Your task to perform on an android device: Clear all items from cart on bestbuy.com. Add "lenovo thinkpad" to the cart on bestbuy.com, then select checkout. Image 0: 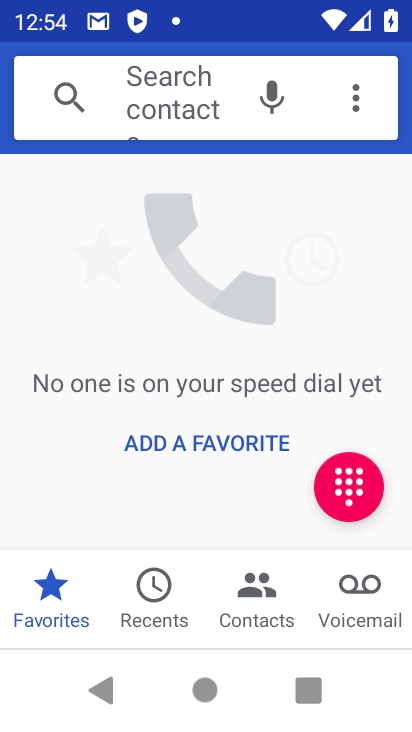
Step 0: press home button
Your task to perform on an android device: Clear all items from cart on bestbuy.com. Add "lenovo thinkpad" to the cart on bestbuy.com, then select checkout. Image 1: 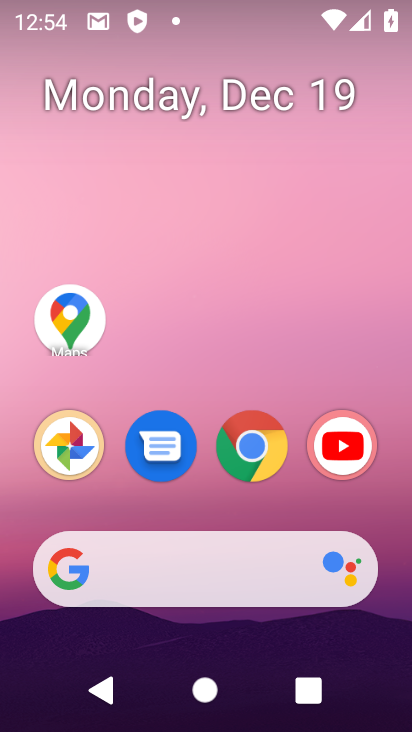
Step 1: click (229, 470)
Your task to perform on an android device: Clear all items from cart on bestbuy.com. Add "lenovo thinkpad" to the cart on bestbuy.com, then select checkout. Image 2: 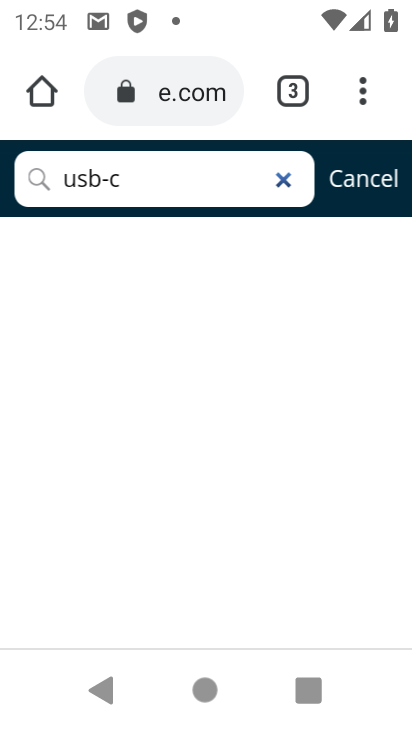
Step 2: click (186, 104)
Your task to perform on an android device: Clear all items from cart on bestbuy.com. Add "lenovo thinkpad" to the cart on bestbuy.com, then select checkout. Image 3: 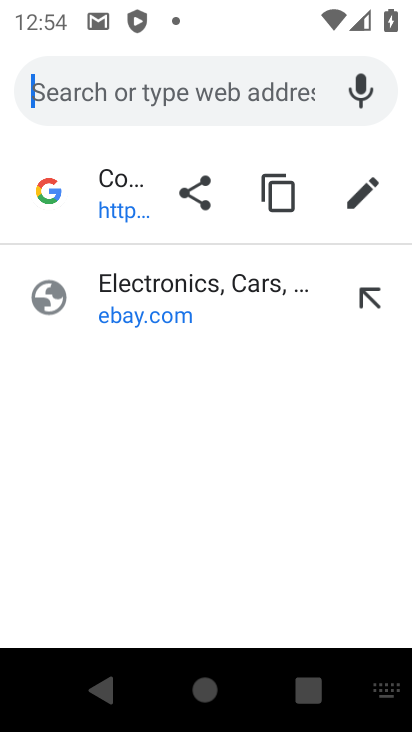
Step 3: type "bestbuy"
Your task to perform on an android device: Clear all items from cart on bestbuy.com. Add "lenovo thinkpad" to the cart on bestbuy.com, then select checkout. Image 4: 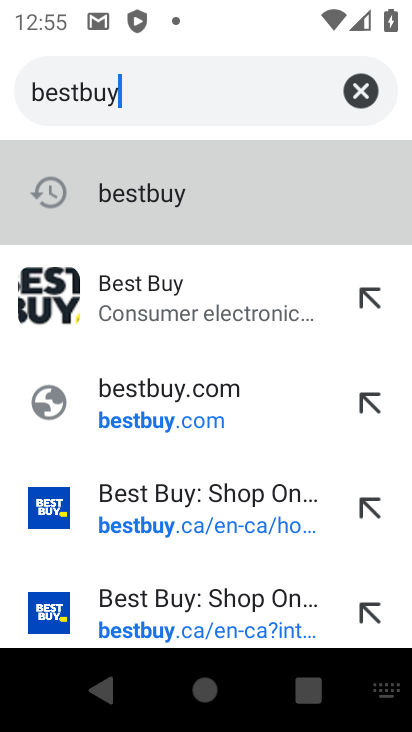
Step 4: click (193, 296)
Your task to perform on an android device: Clear all items from cart on bestbuy.com. Add "lenovo thinkpad" to the cart on bestbuy.com, then select checkout. Image 5: 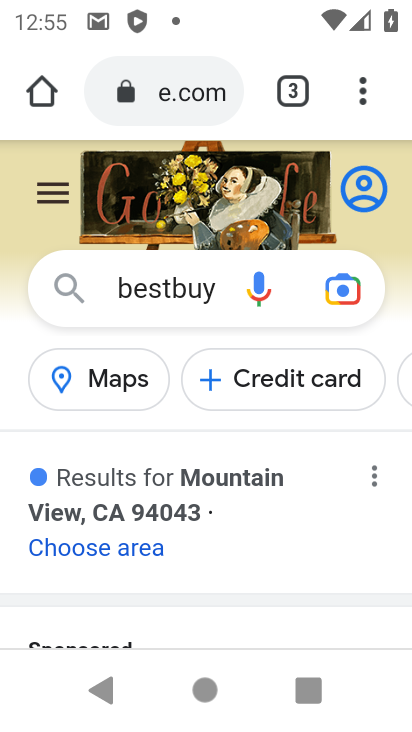
Step 5: drag from (123, 614) to (157, 161)
Your task to perform on an android device: Clear all items from cart on bestbuy.com. Add "lenovo thinkpad" to the cart on bestbuy.com, then select checkout. Image 6: 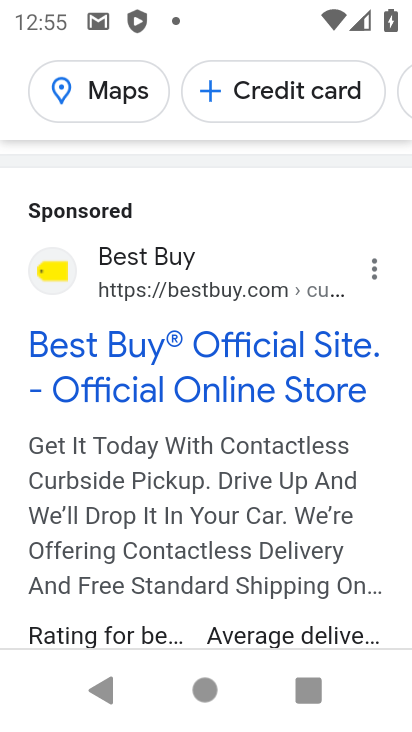
Step 6: click (153, 384)
Your task to perform on an android device: Clear all items from cart on bestbuy.com. Add "lenovo thinkpad" to the cart on bestbuy.com, then select checkout. Image 7: 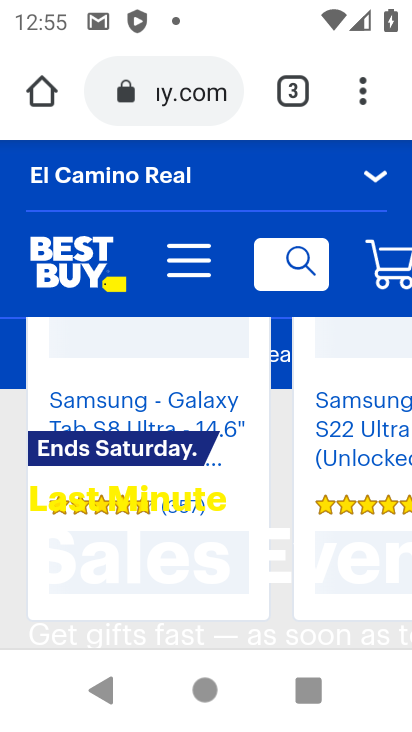
Step 7: click (281, 253)
Your task to perform on an android device: Clear all items from cart on bestbuy.com. Add "lenovo thinkpad" to the cart on bestbuy.com, then select checkout. Image 8: 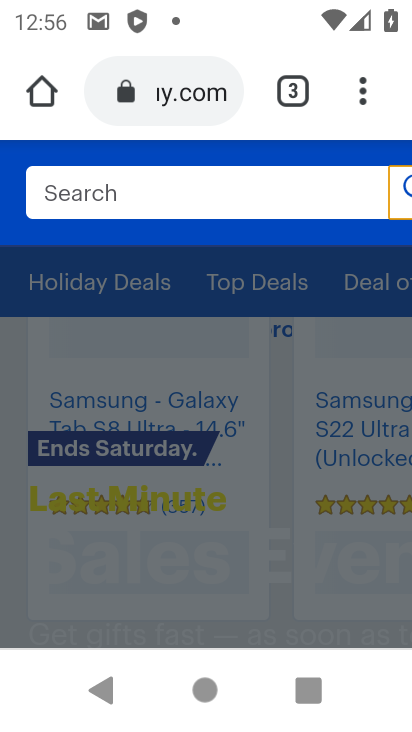
Step 8: type "lenovo thinkpad"
Your task to perform on an android device: Clear all items from cart on bestbuy.com. Add "lenovo thinkpad" to the cart on bestbuy.com, then select checkout. Image 9: 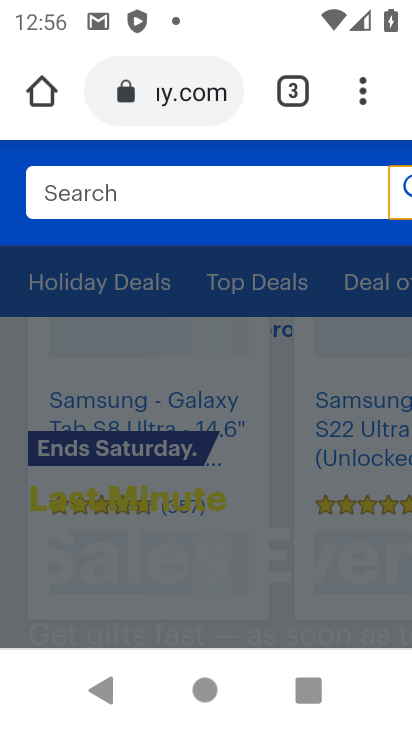
Step 9: click (225, 203)
Your task to perform on an android device: Clear all items from cart on bestbuy.com. Add "lenovo thinkpad" to the cart on bestbuy.com, then select checkout. Image 10: 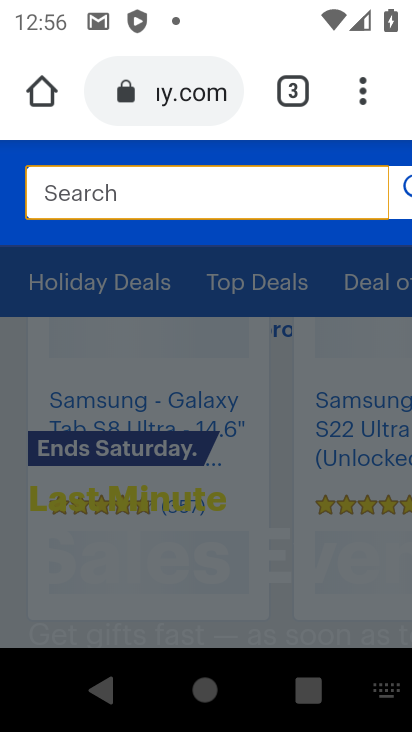
Step 10: type "lenovo think pad"
Your task to perform on an android device: Clear all items from cart on bestbuy.com. Add "lenovo thinkpad" to the cart on bestbuy.com, then select checkout. Image 11: 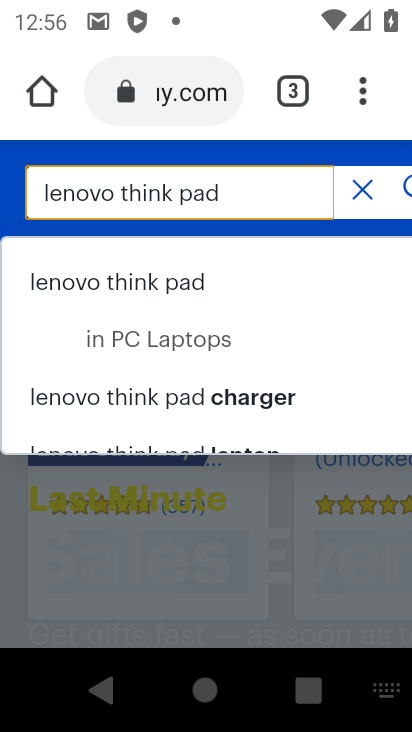
Step 11: click (208, 286)
Your task to perform on an android device: Clear all items from cart on bestbuy.com. Add "lenovo thinkpad" to the cart on bestbuy.com, then select checkout. Image 12: 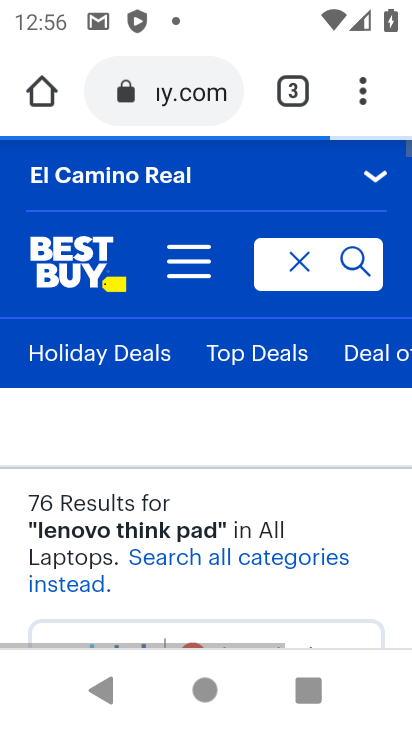
Step 12: drag from (288, 586) to (184, 82)
Your task to perform on an android device: Clear all items from cart on bestbuy.com. Add "lenovo thinkpad" to the cart on bestbuy.com, then select checkout. Image 13: 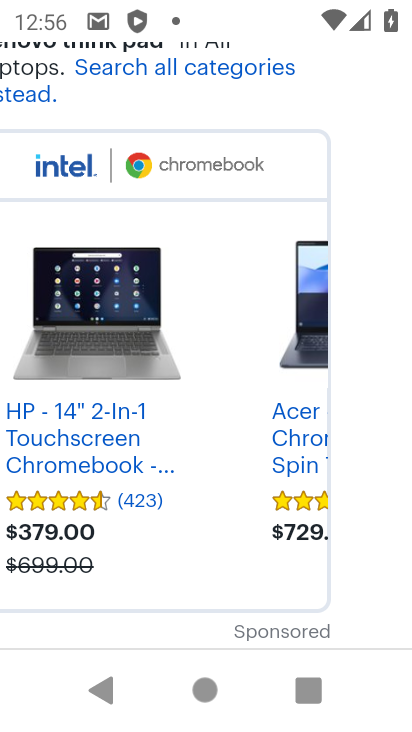
Step 13: click (68, 424)
Your task to perform on an android device: Clear all items from cart on bestbuy.com. Add "lenovo thinkpad" to the cart on bestbuy.com, then select checkout. Image 14: 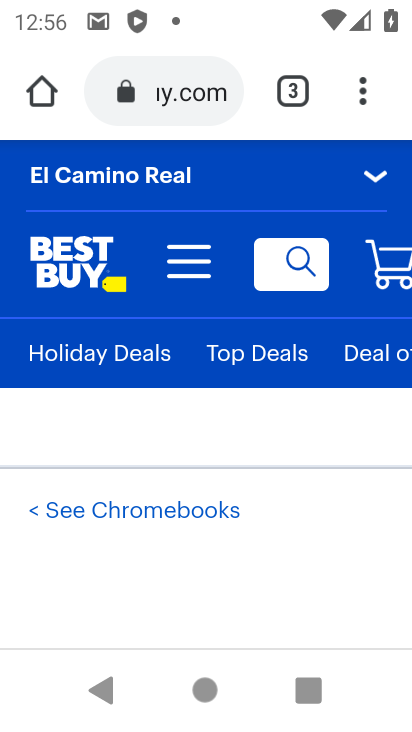
Step 14: drag from (149, 607) to (125, 426)
Your task to perform on an android device: Clear all items from cart on bestbuy.com. Add "lenovo thinkpad" to the cart on bestbuy.com, then select checkout. Image 15: 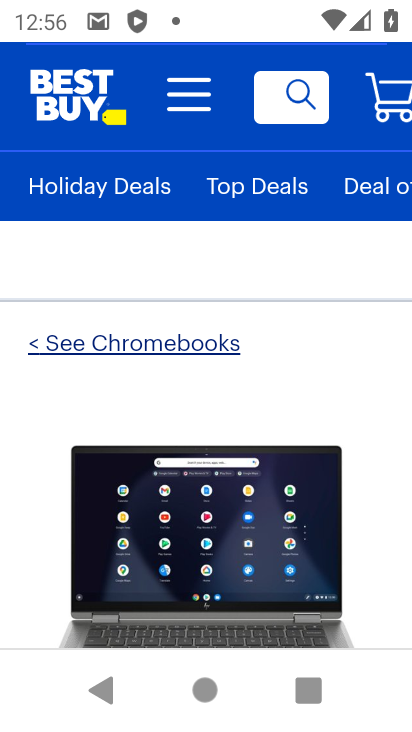
Step 15: drag from (393, 632) to (231, 232)
Your task to perform on an android device: Clear all items from cart on bestbuy.com. Add "lenovo thinkpad" to the cart on bestbuy.com, then select checkout. Image 16: 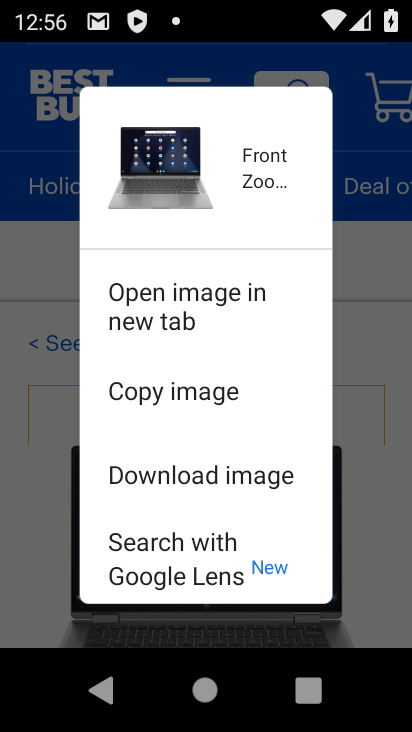
Step 16: click (398, 500)
Your task to perform on an android device: Clear all items from cart on bestbuy.com. Add "lenovo thinkpad" to the cart on bestbuy.com, then select checkout. Image 17: 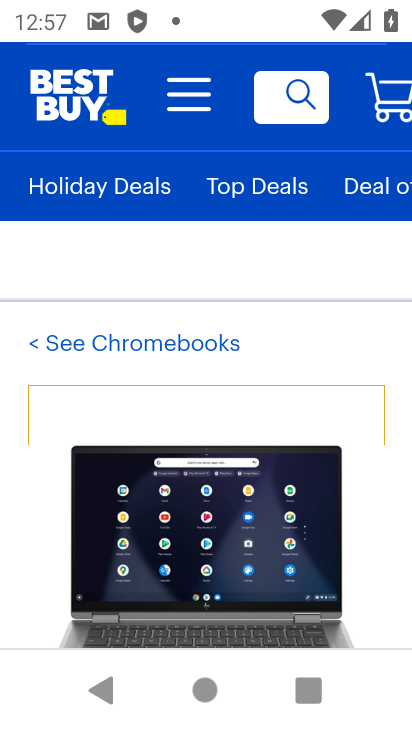
Step 17: task complete